Your task to perform on an android device: set the timer Image 0: 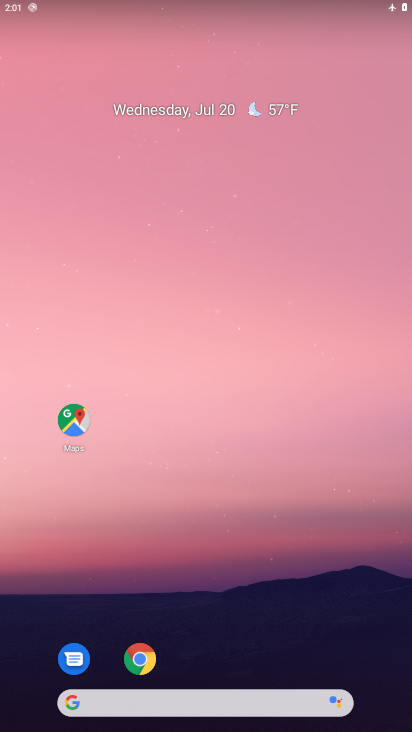
Step 0: drag from (9, 713) to (266, 293)
Your task to perform on an android device: set the timer Image 1: 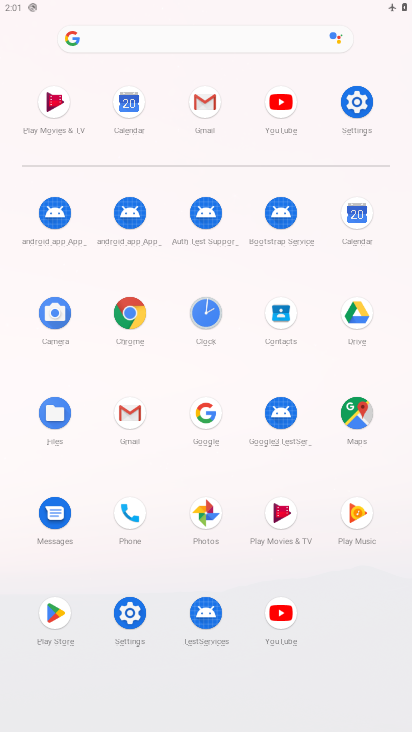
Step 1: click (206, 321)
Your task to perform on an android device: set the timer Image 2: 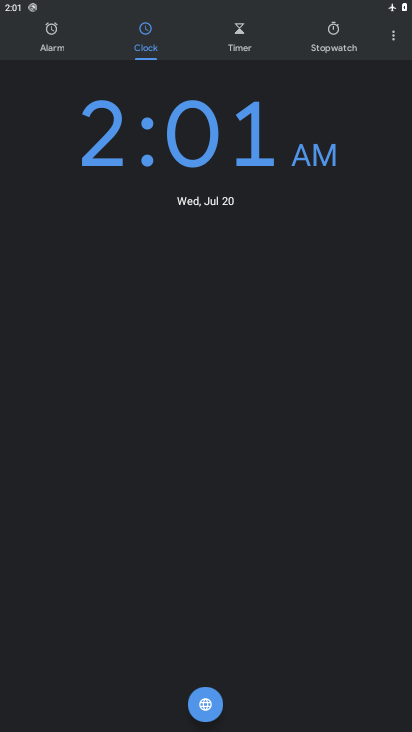
Step 2: click (246, 45)
Your task to perform on an android device: set the timer Image 3: 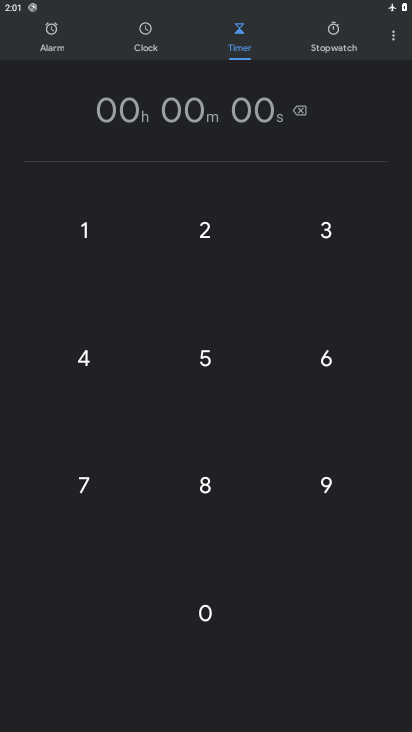
Step 3: click (208, 229)
Your task to perform on an android device: set the timer Image 4: 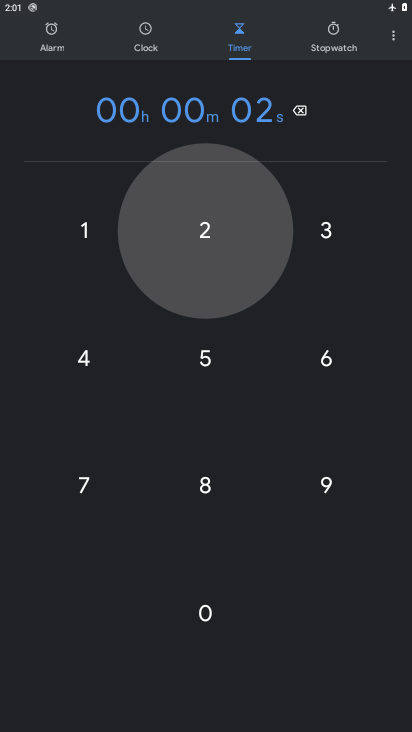
Step 4: click (219, 371)
Your task to perform on an android device: set the timer Image 5: 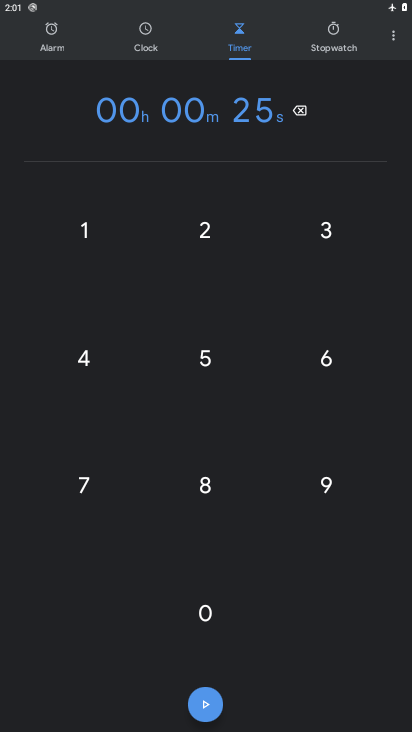
Step 5: click (196, 704)
Your task to perform on an android device: set the timer Image 6: 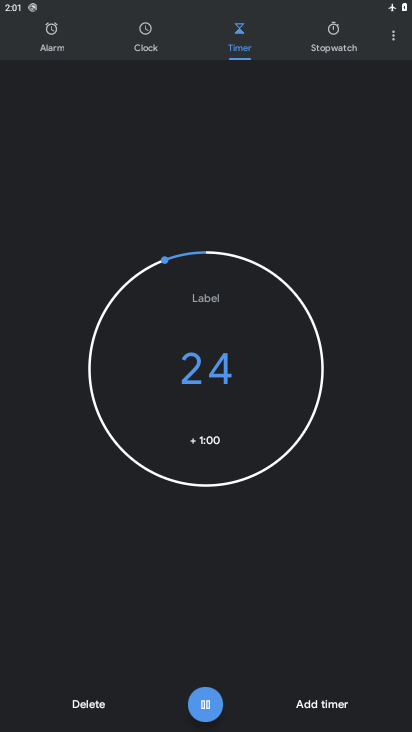
Step 6: click (200, 706)
Your task to perform on an android device: set the timer Image 7: 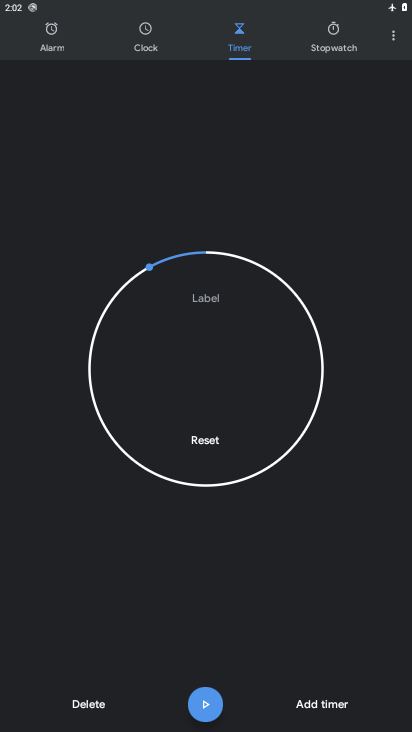
Step 7: task complete